Your task to perform on an android device: Search for sushi restaurants on Maps Image 0: 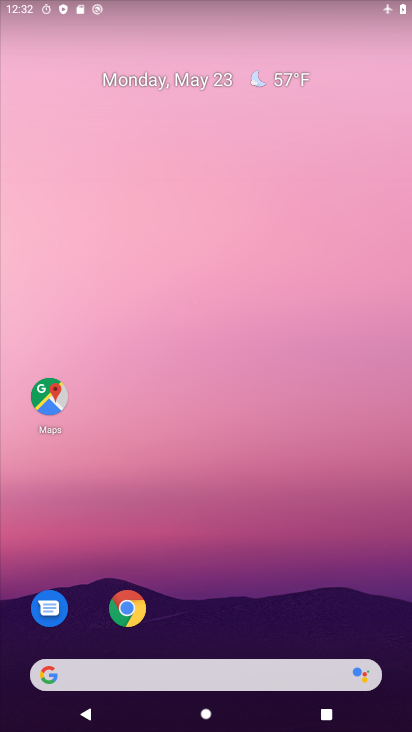
Step 0: drag from (312, 580) to (293, 235)
Your task to perform on an android device: Search for sushi restaurants on Maps Image 1: 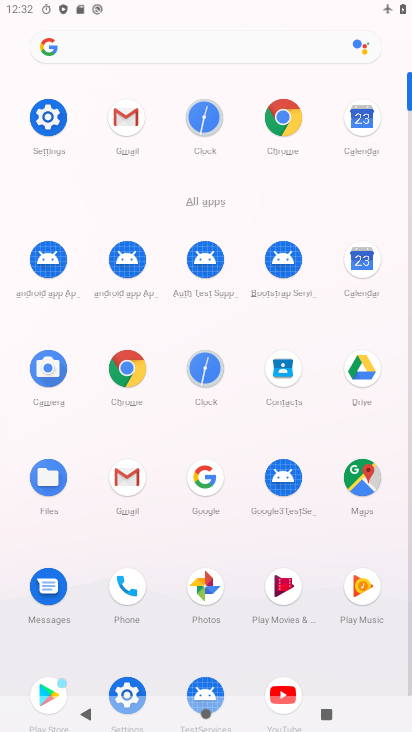
Step 1: press home button
Your task to perform on an android device: Search for sushi restaurants on Maps Image 2: 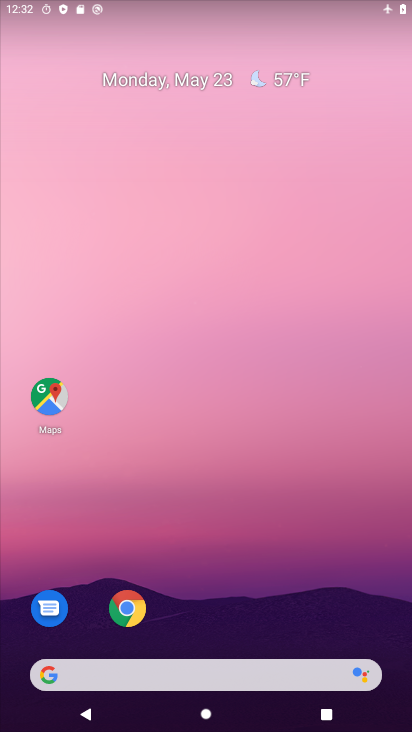
Step 2: drag from (312, 624) to (312, 222)
Your task to perform on an android device: Search for sushi restaurants on Maps Image 3: 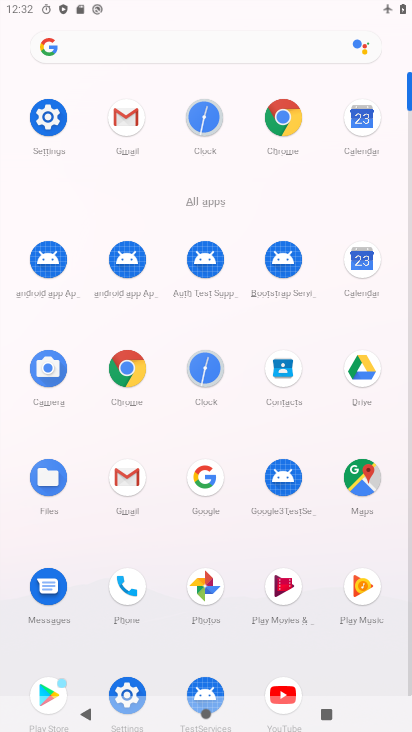
Step 3: click (375, 488)
Your task to perform on an android device: Search for sushi restaurants on Maps Image 4: 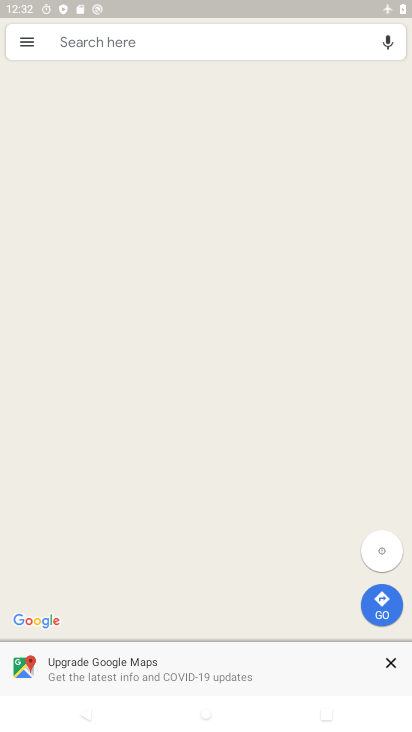
Step 4: click (169, 43)
Your task to perform on an android device: Search for sushi restaurants on Maps Image 5: 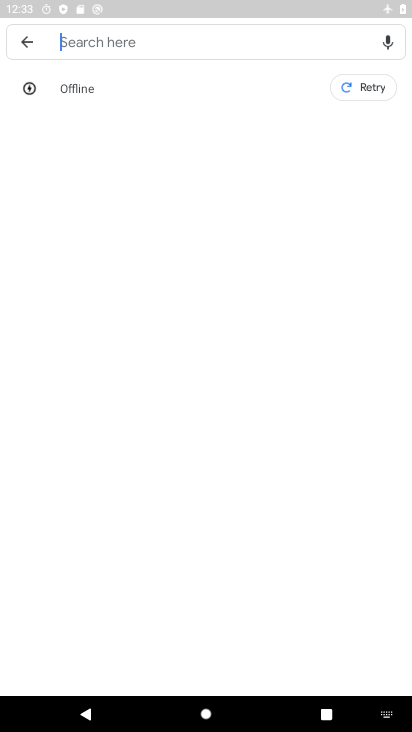
Step 5: type "sushi restaurants "
Your task to perform on an android device: Search for sushi restaurants on Maps Image 6: 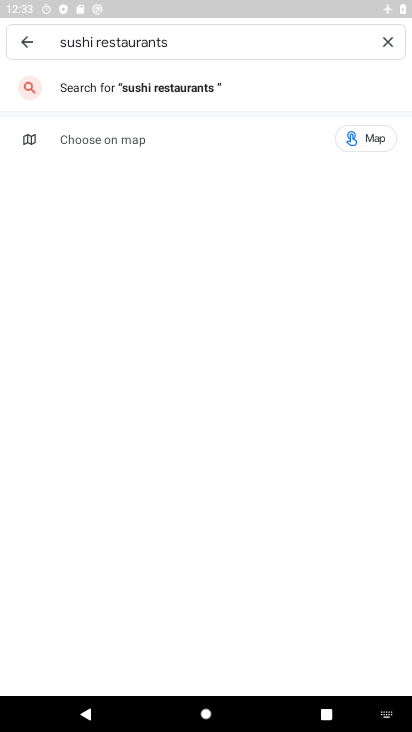
Step 6: click (187, 94)
Your task to perform on an android device: Search for sushi restaurants on Maps Image 7: 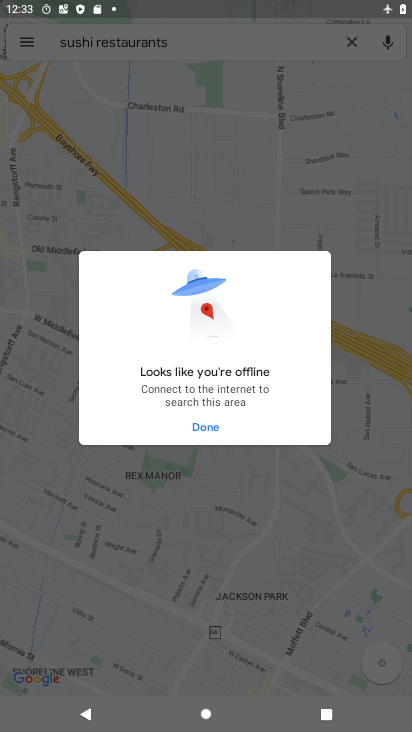
Step 7: task complete